Your task to perform on an android device: Search for "macbook air" on bestbuy.com, select the first entry, add it to the cart, then select checkout. Image 0: 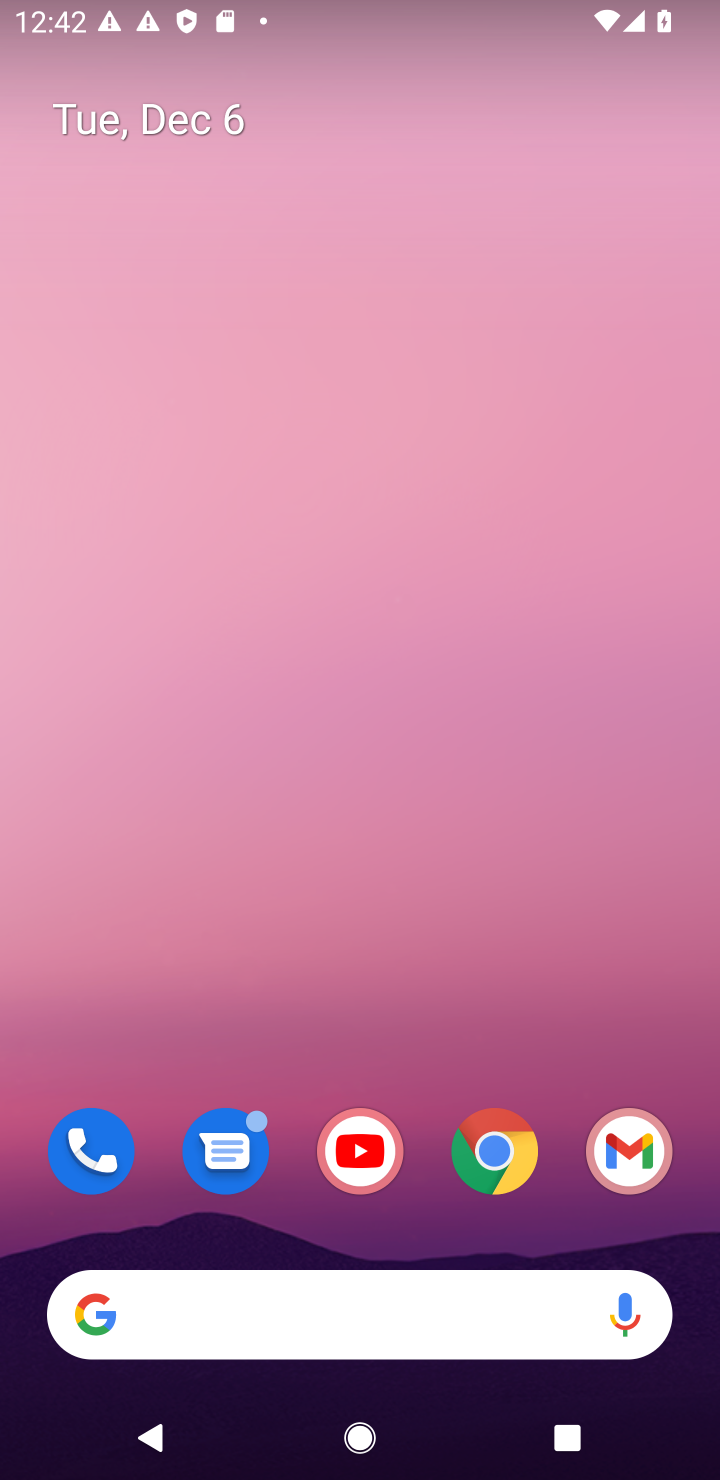
Step 0: click (486, 1154)
Your task to perform on an android device: Search for "macbook air" on bestbuy.com, select the first entry, add it to the cart, then select checkout. Image 1: 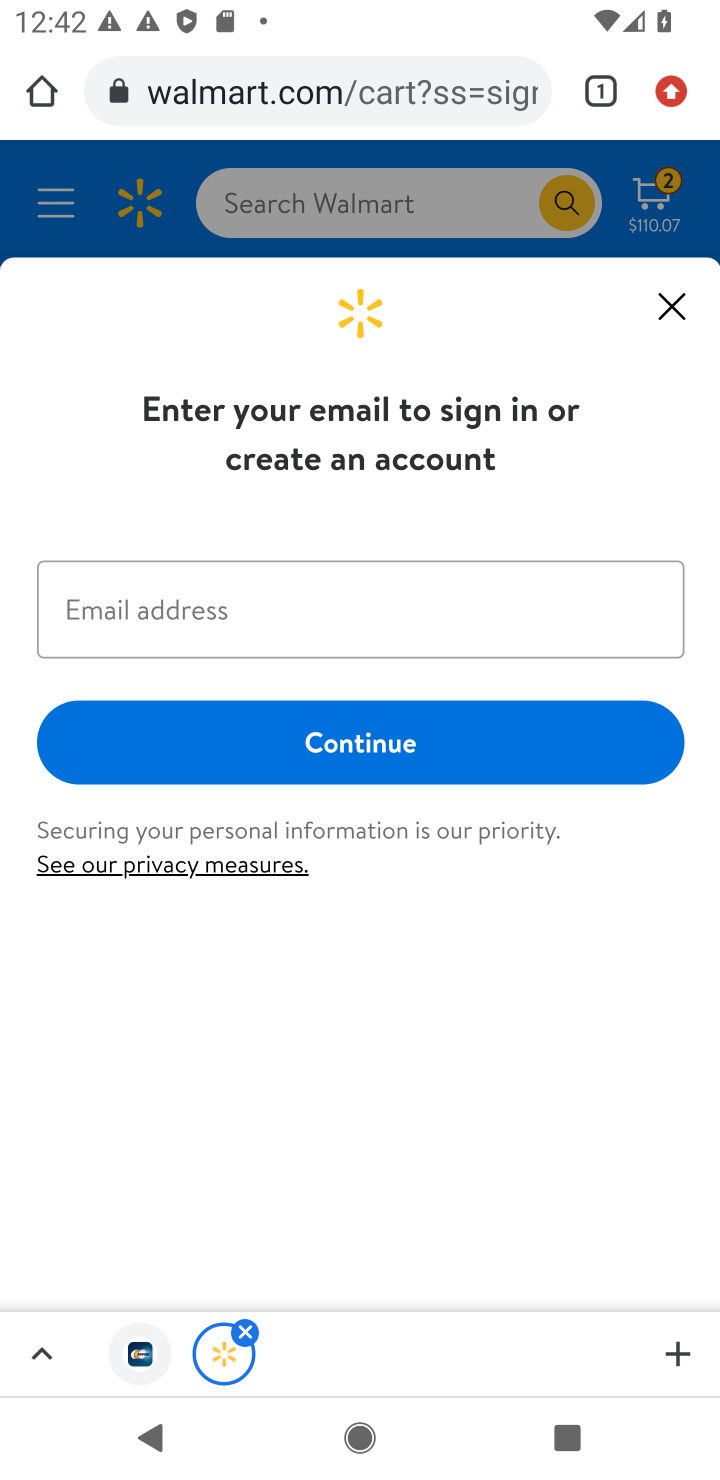
Step 1: click (286, 108)
Your task to perform on an android device: Search for "macbook air" on bestbuy.com, select the first entry, add it to the cart, then select checkout. Image 2: 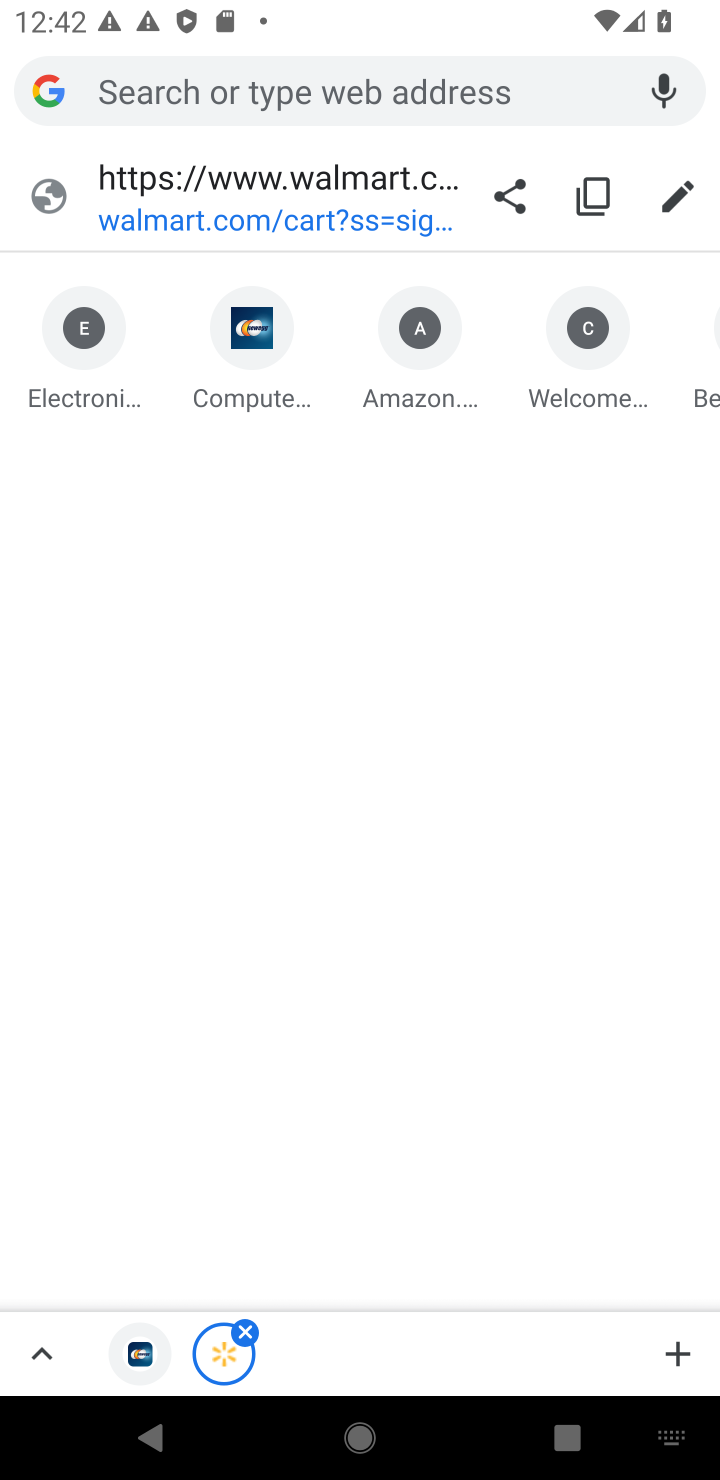
Step 2: type "bestbuy.com"
Your task to perform on an android device: Search for "macbook air" on bestbuy.com, select the first entry, add it to the cart, then select checkout. Image 3: 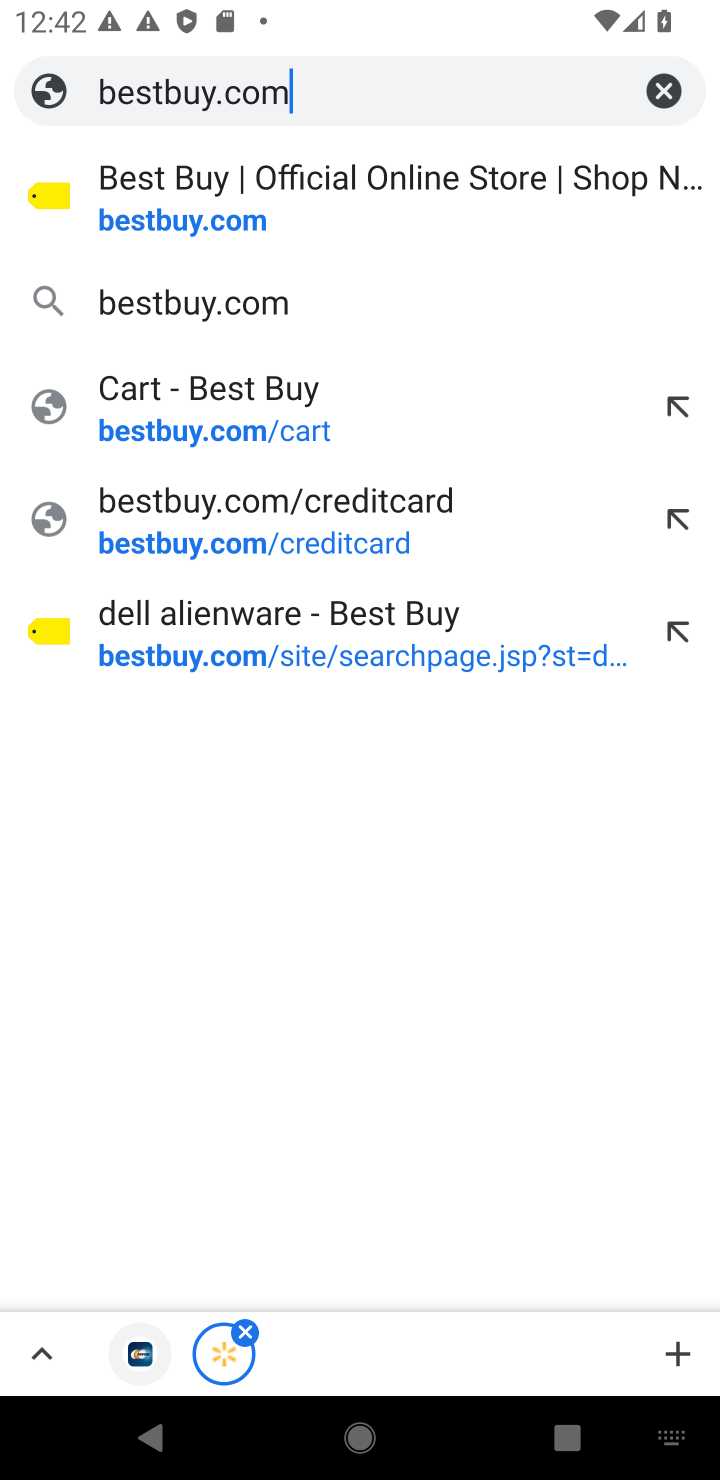
Step 3: click (135, 223)
Your task to perform on an android device: Search for "macbook air" on bestbuy.com, select the first entry, add it to the cart, then select checkout. Image 4: 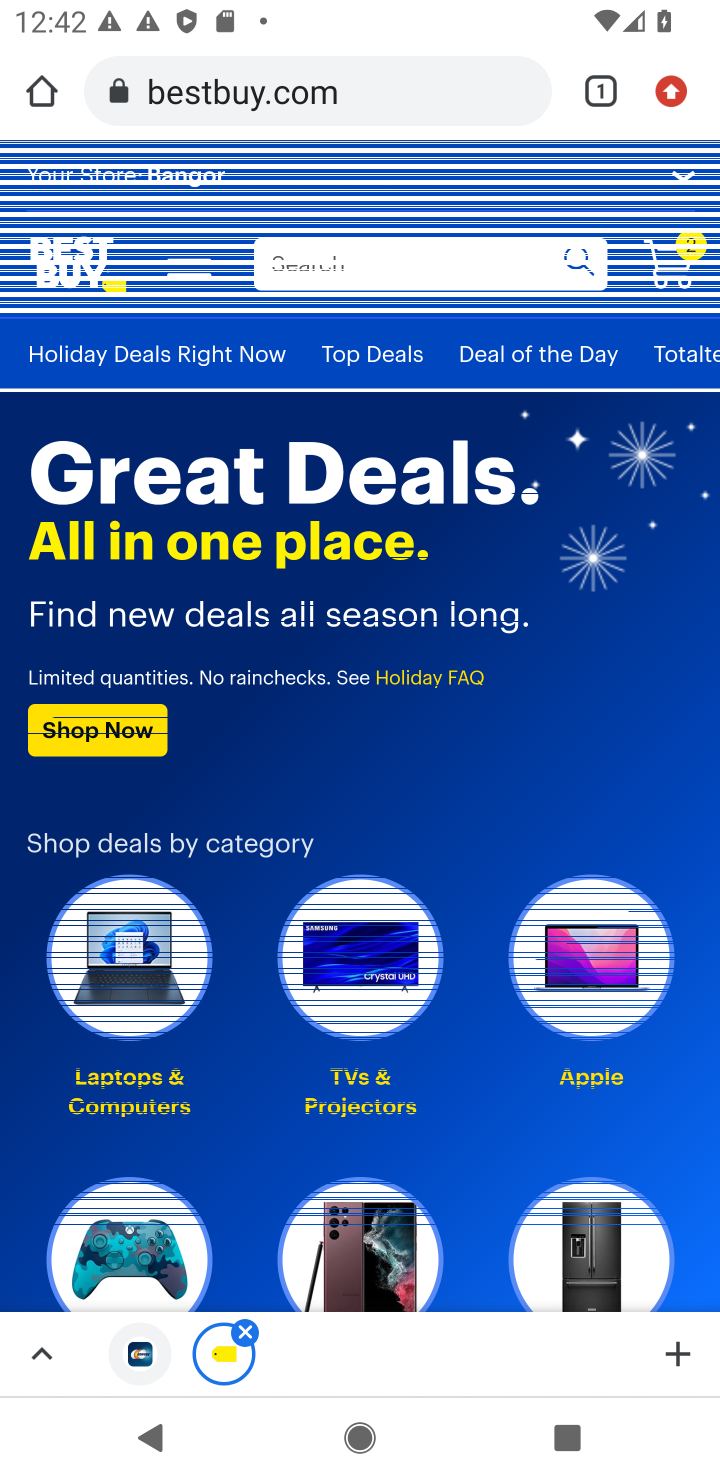
Step 4: click (343, 269)
Your task to perform on an android device: Search for "macbook air" on bestbuy.com, select the first entry, add it to the cart, then select checkout. Image 5: 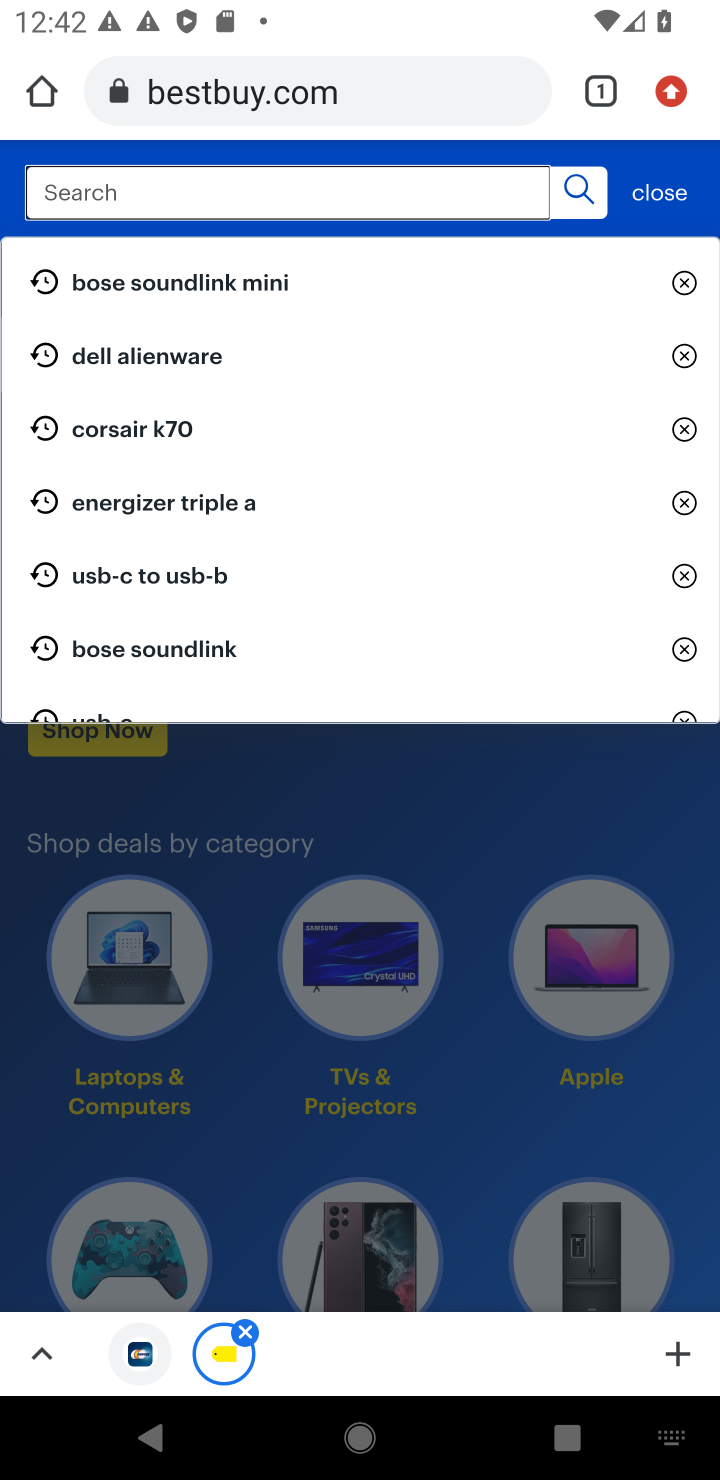
Step 5: type "macbook air"
Your task to perform on an android device: Search for "macbook air" on bestbuy.com, select the first entry, add it to the cart, then select checkout. Image 6: 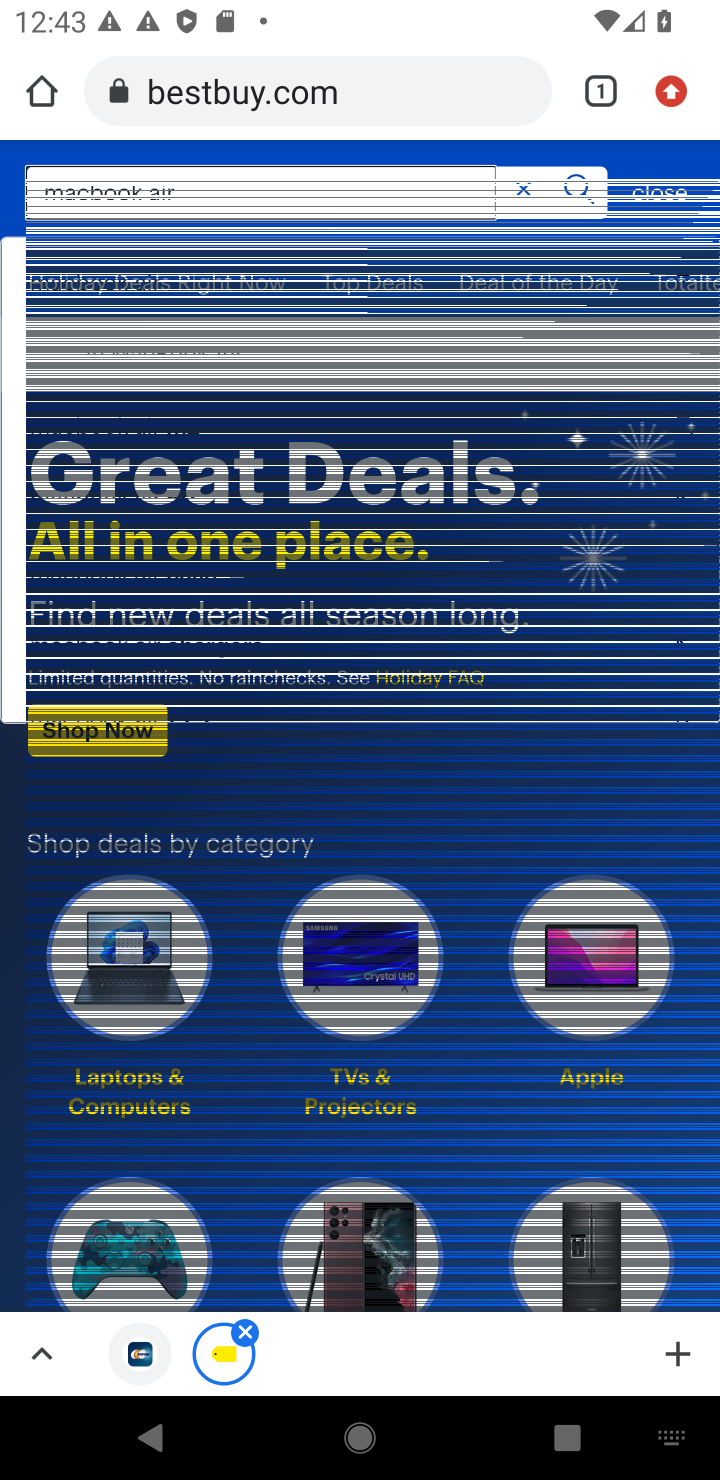
Step 6: click (65, 286)
Your task to perform on an android device: Search for "macbook air" on bestbuy.com, select the first entry, add it to the cart, then select checkout. Image 7: 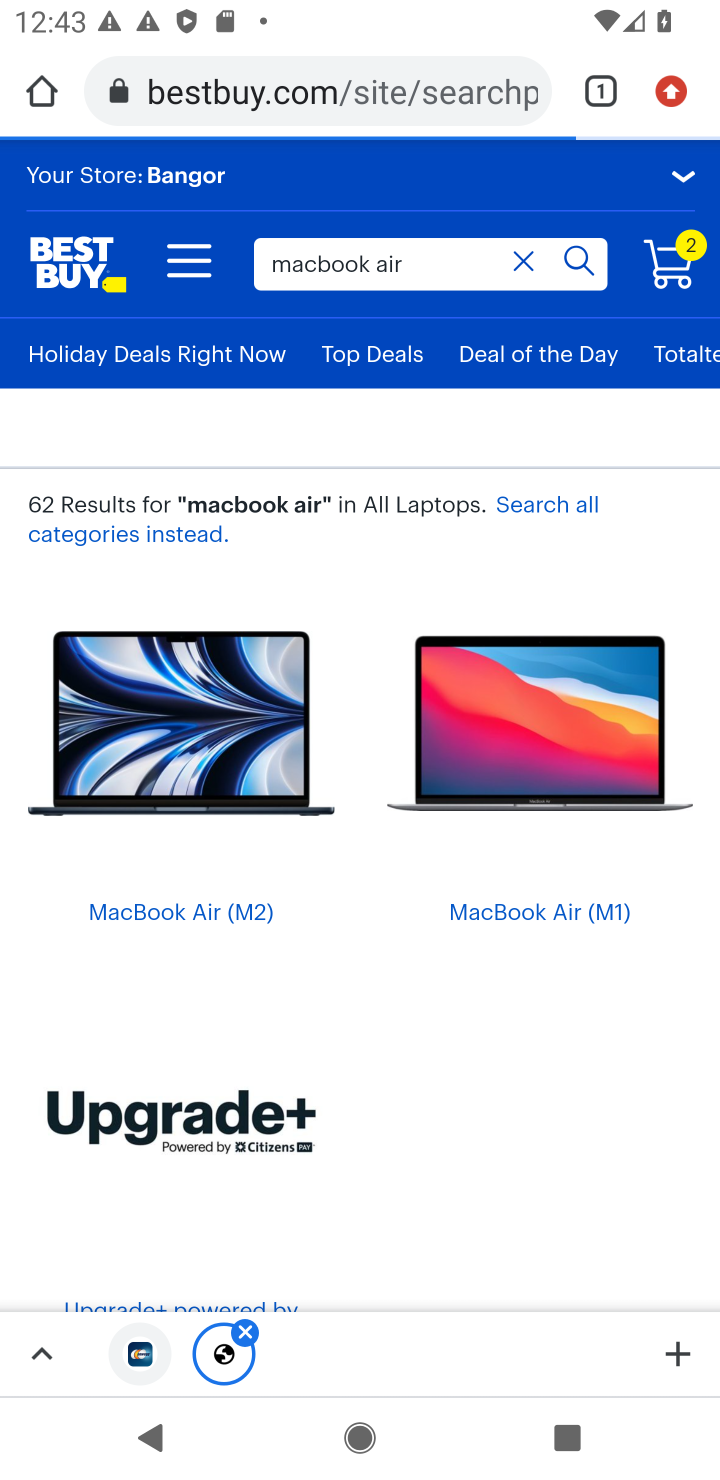
Step 7: drag from (323, 998) to (363, 354)
Your task to perform on an android device: Search for "macbook air" on bestbuy.com, select the first entry, add it to the cart, then select checkout. Image 8: 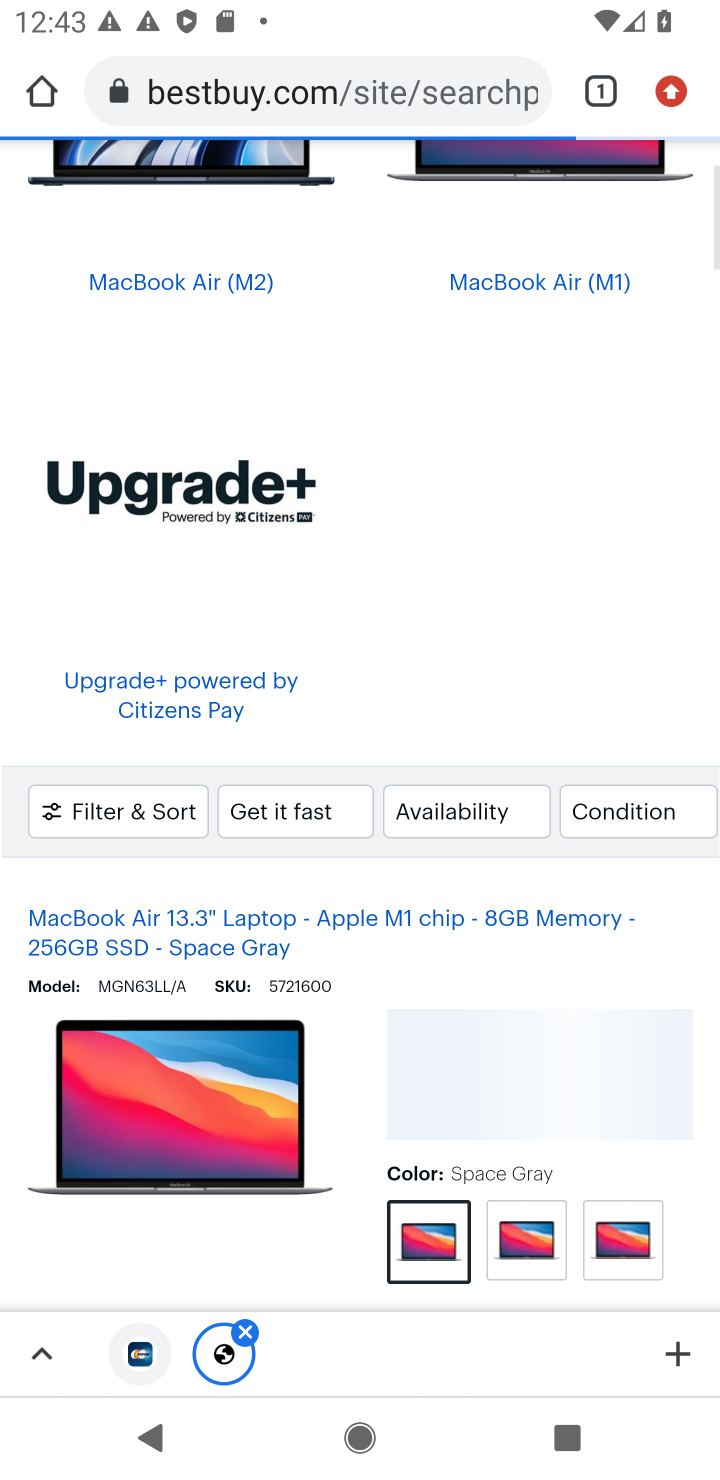
Step 8: drag from (293, 1022) to (293, 442)
Your task to perform on an android device: Search for "macbook air" on bestbuy.com, select the first entry, add it to the cart, then select checkout. Image 9: 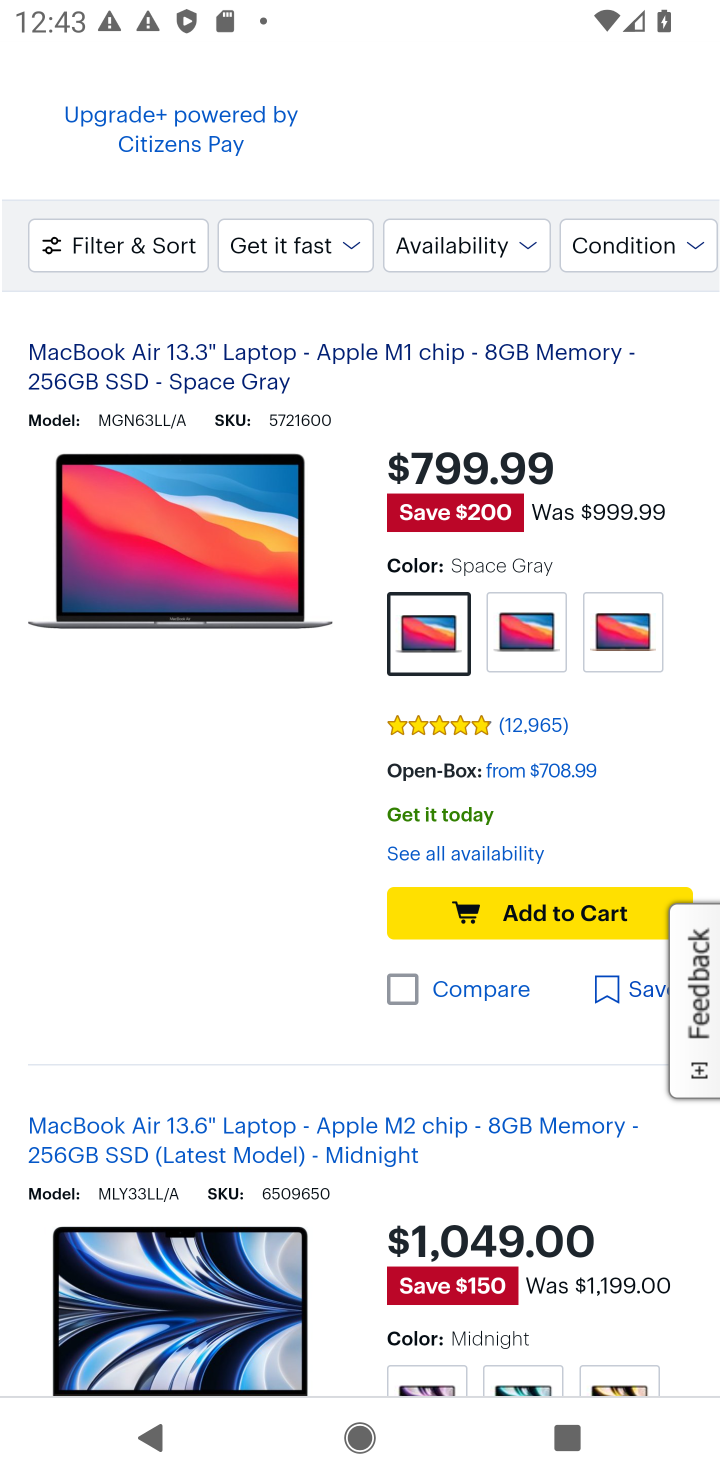
Step 9: click (469, 908)
Your task to perform on an android device: Search for "macbook air" on bestbuy.com, select the first entry, add it to the cart, then select checkout. Image 10: 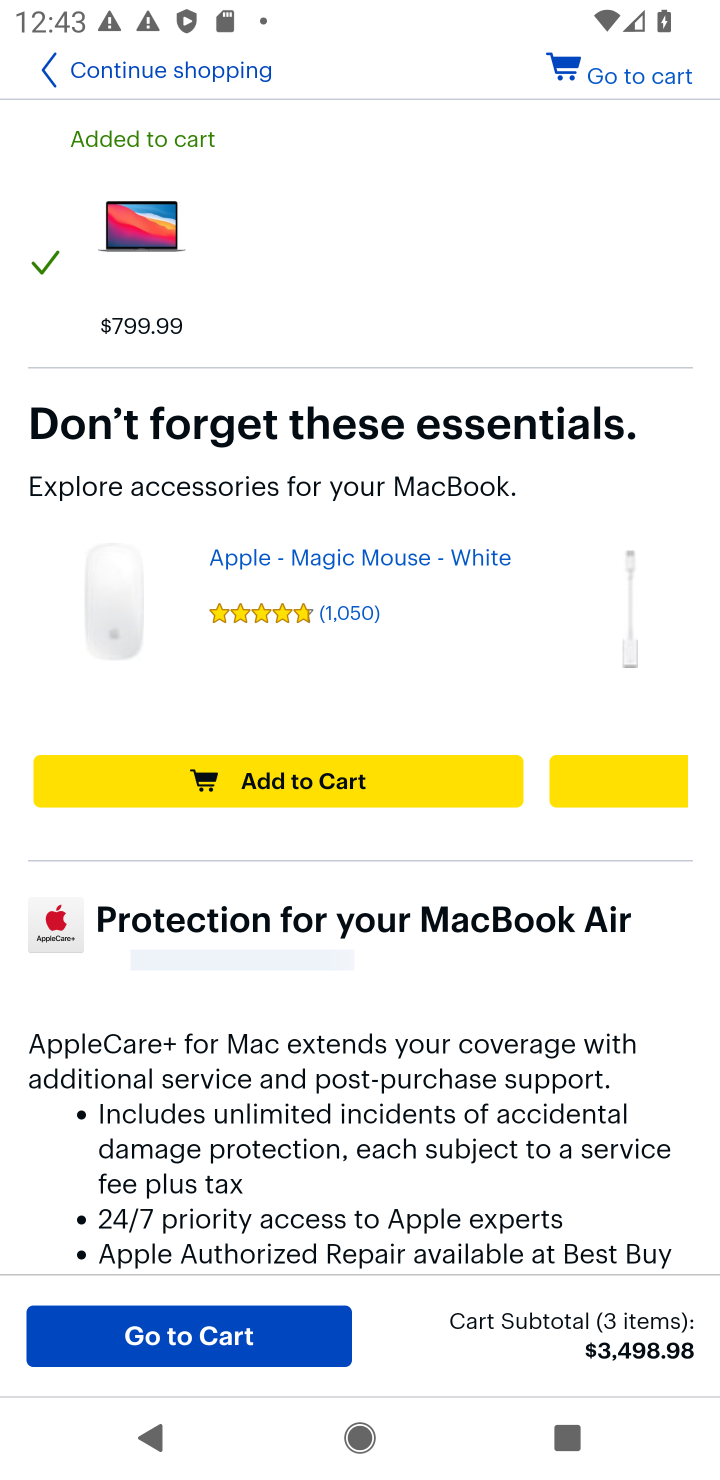
Step 10: click (651, 86)
Your task to perform on an android device: Search for "macbook air" on bestbuy.com, select the first entry, add it to the cart, then select checkout. Image 11: 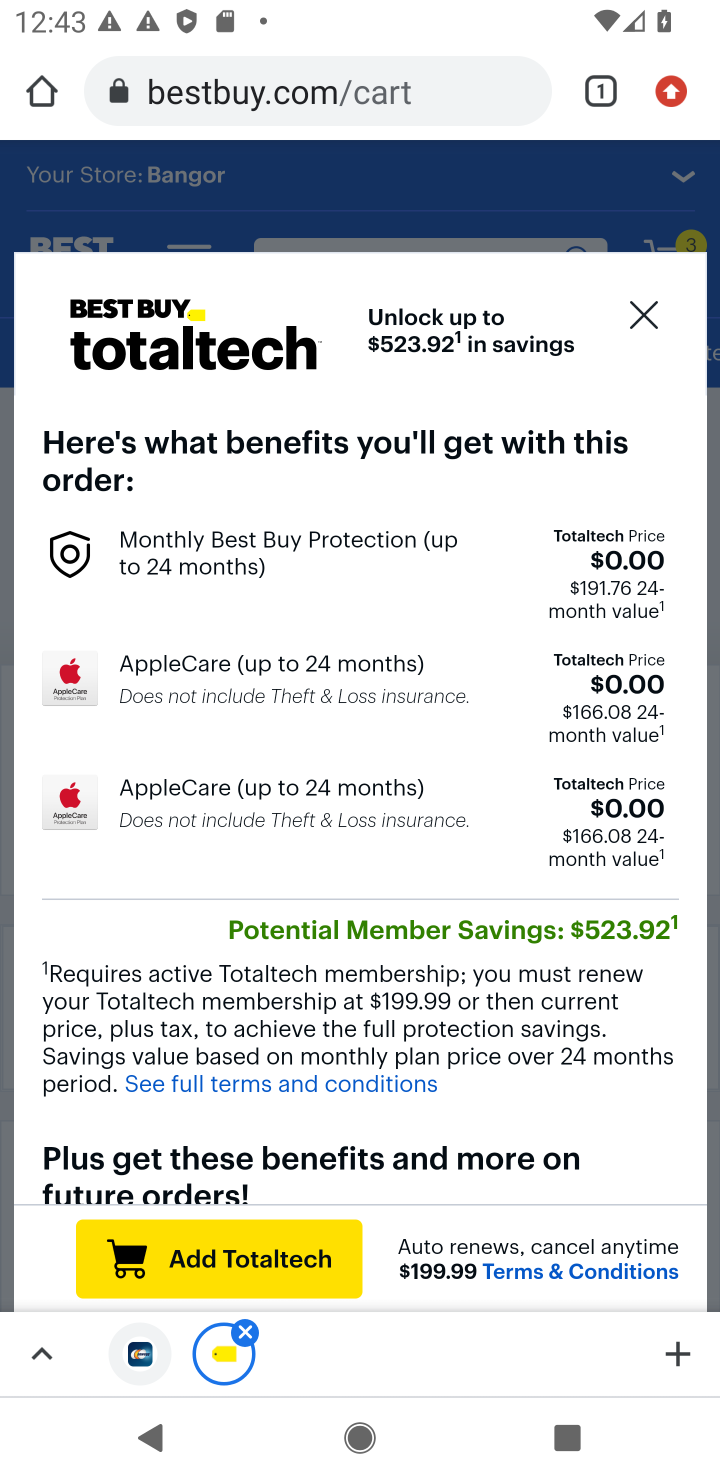
Step 11: click (299, 844)
Your task to perform on an android device: Search for "macbook air" on bestbuy.com, select the first entry, add it to the cart, then select checkout. Image 12: 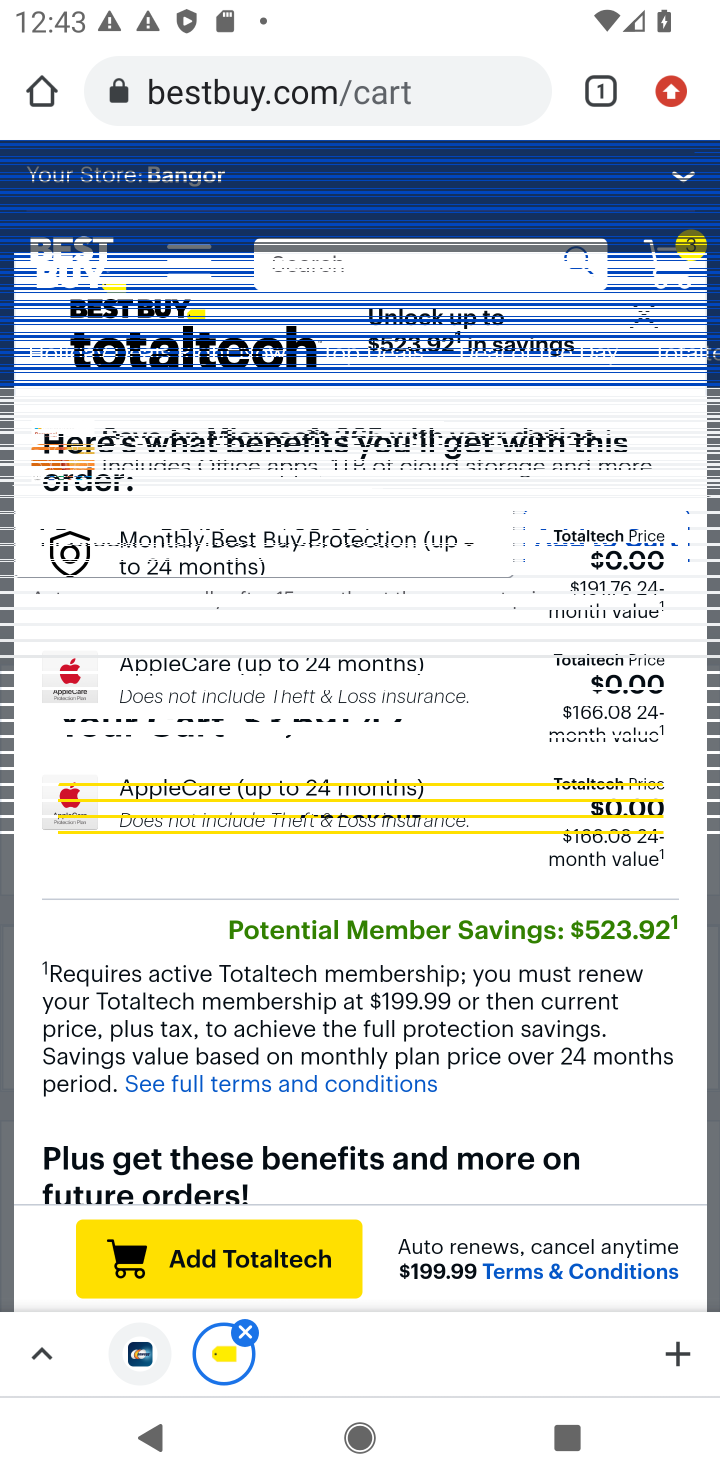
Step 12: click (628, 321)
Your task to perform on an android device: Search for "macbook air" on bestbuy.com, select the first entry, add it to the cart, then select checkout. Image 13: 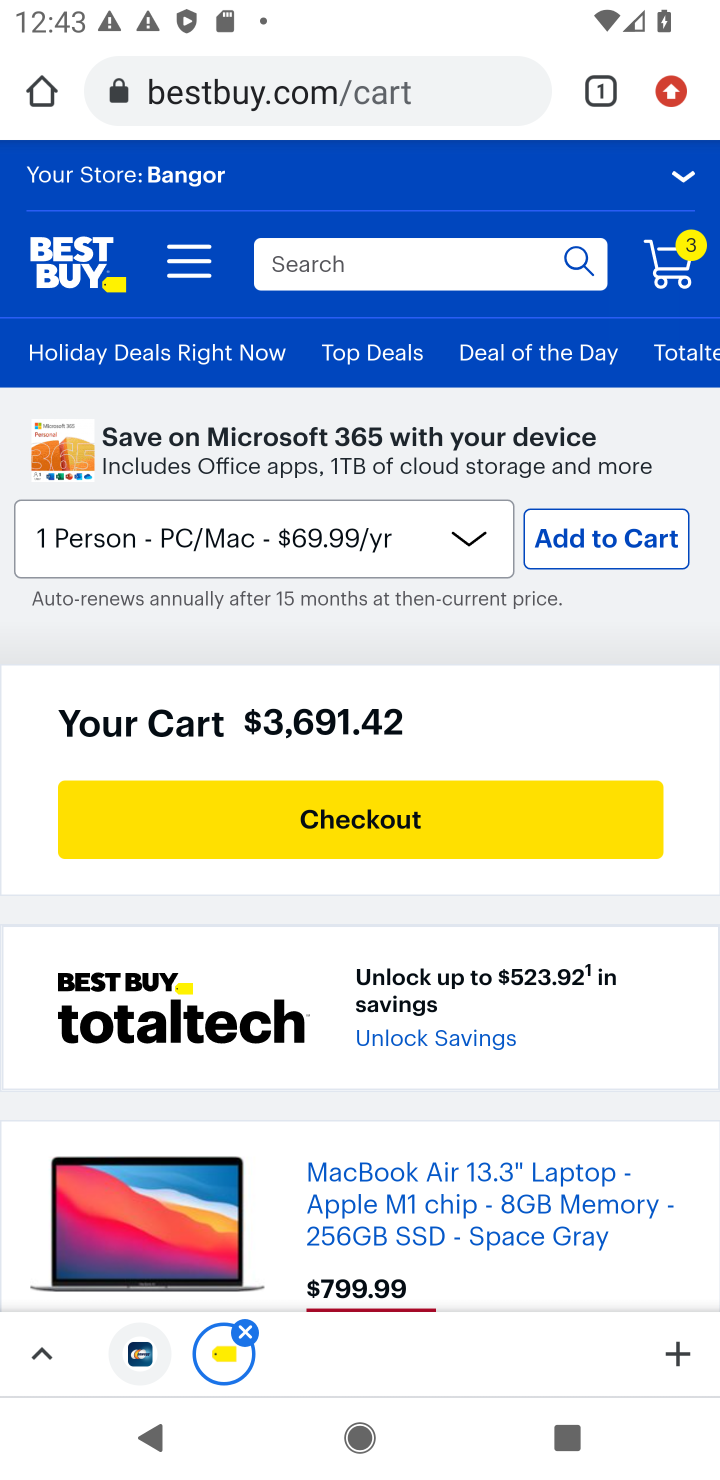
Step 13: click (420, 839)
Your task to perform on an android device: Search for "macbook air" on bestbuy.com, select the first entry, add it to the cart, then select checkout. Image 14: 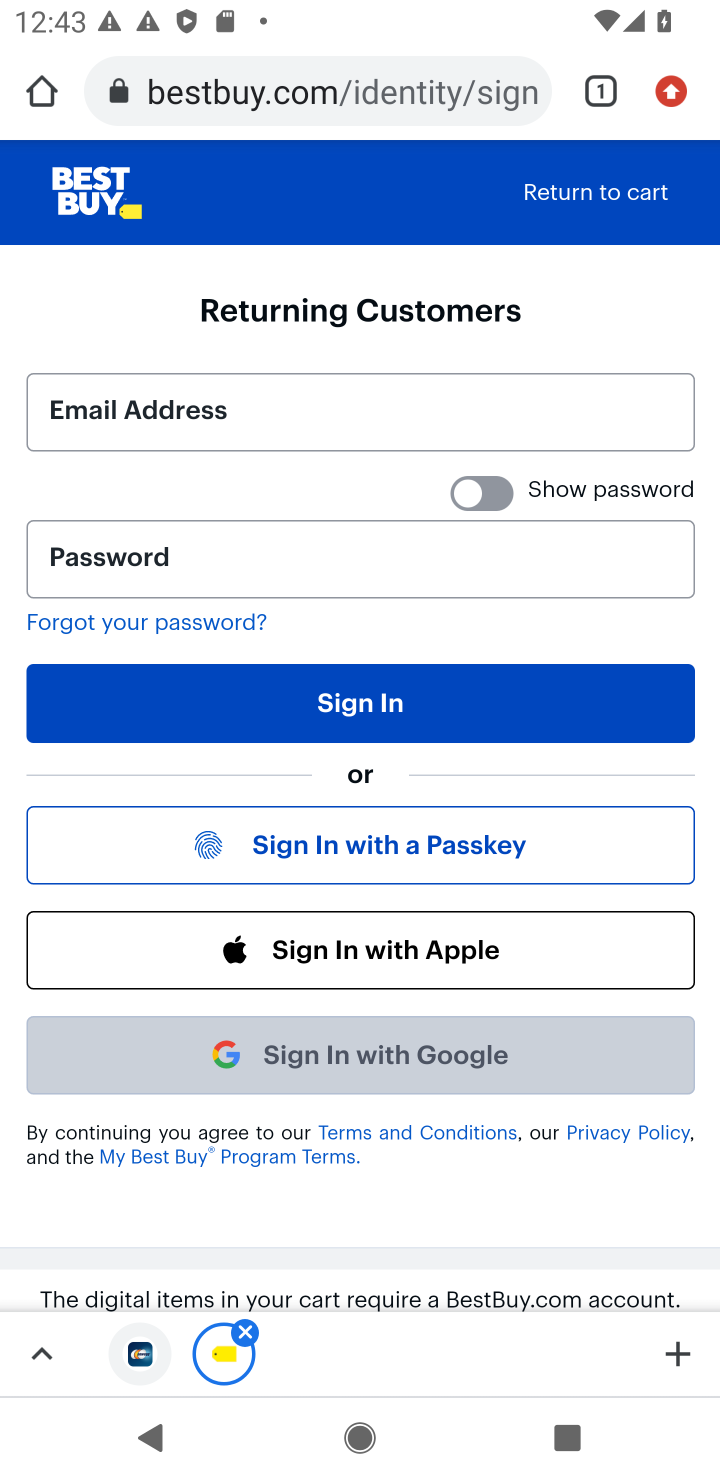
Step 14: task complete